Your task to perform on an android device: Open display settings Image 0: 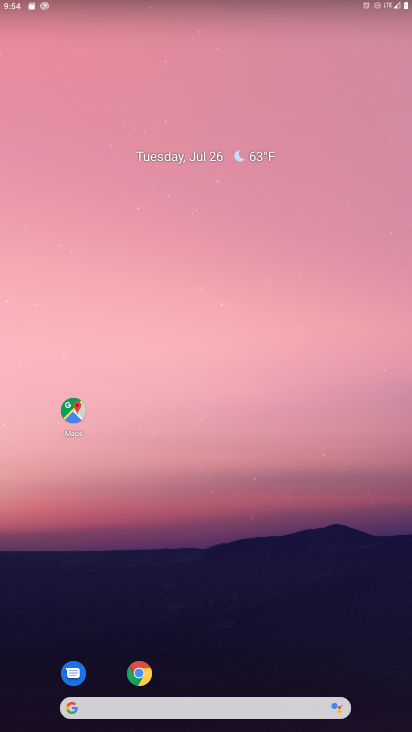
Step 0: drag from (306, 612) to (90, 71)
Your task to perform on an android device: Open display settings Image 1: 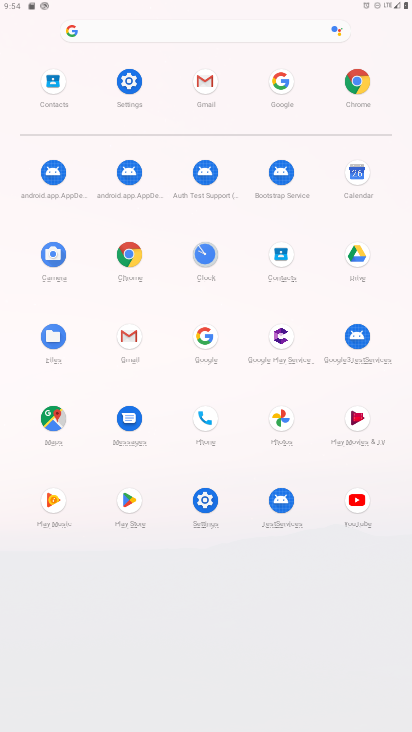
Step 1: click (203, 511)
Your task to perform on an android device: Open display settings Image 2: 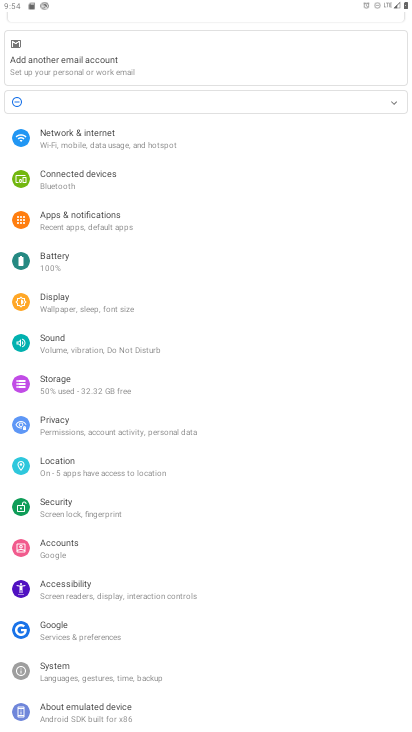
Step 2: click (57, 300)
Your task to perform on an android device: Open display settings Image 3: 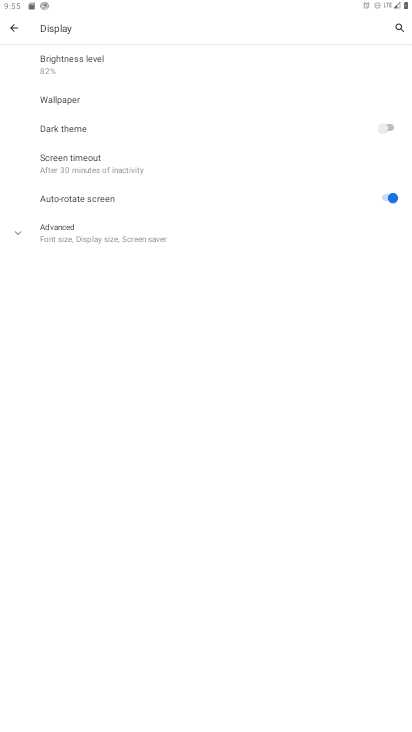
Step 3: task complete